Your task to perform on an android device: Is it going to rain this weekend? Image 0: 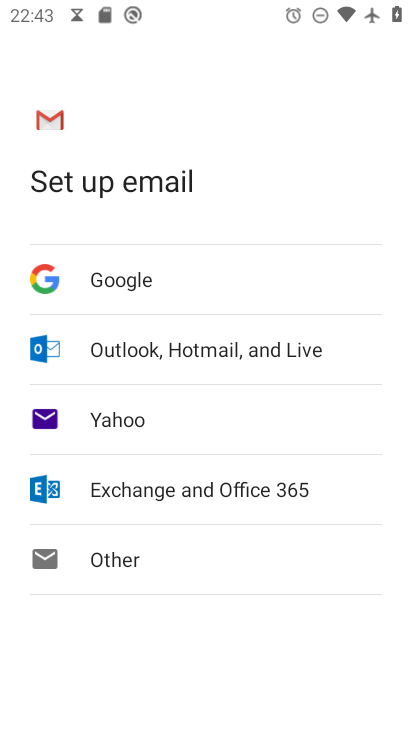
Step 0: press home button
Your task to perform on an android device: Is it going to rain this weekend? Image 1: 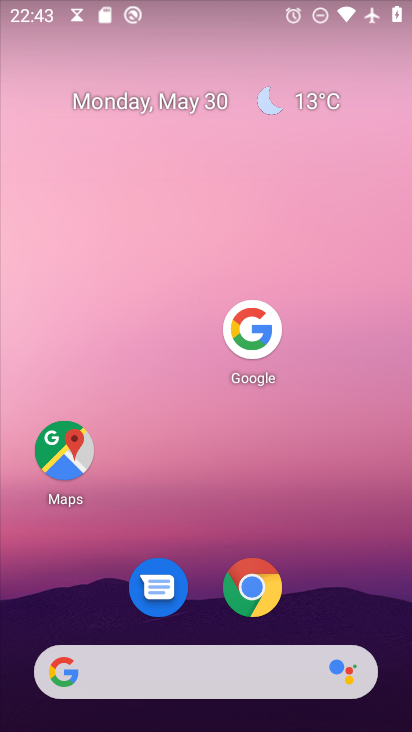
Step 1: click (304, 97)
Your task to perform on an android device: Is it going to rain this weekend? Image 2: 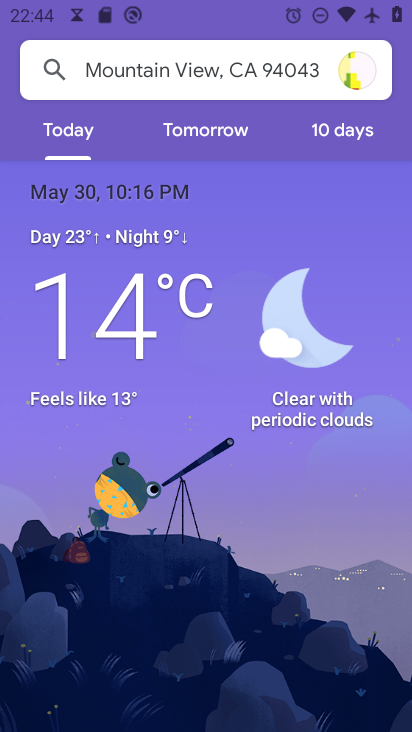
Step 2: click (343, 123)
Your task to perform on an android device: Is it going to rain this weekend? Image 3: 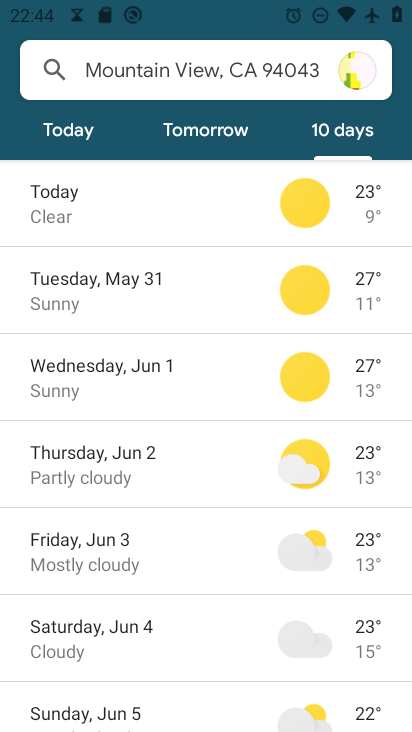
Step 3: click (126, 638)
Your task to perform on an android device: Is it going to rain this weekend? Image 4: 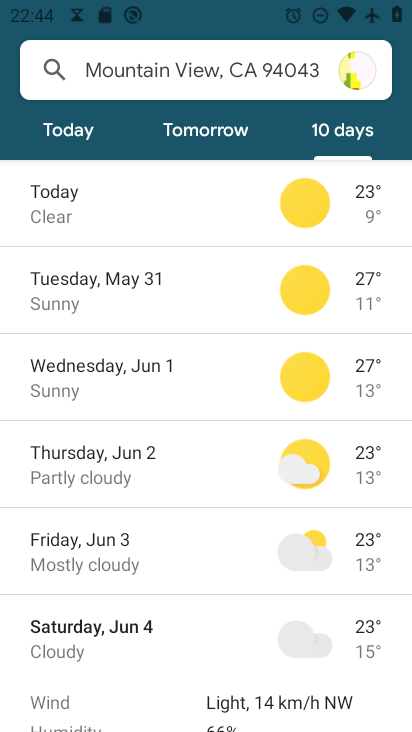
Step 4: task complete